Your task to perform on an android device: Go to display settings Image 0: 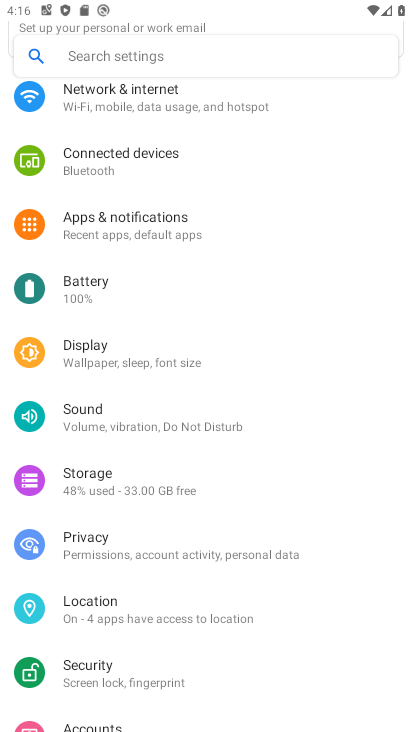
Step 0: press home button
Your task to perform on an android device: Go to display settings Image 1: 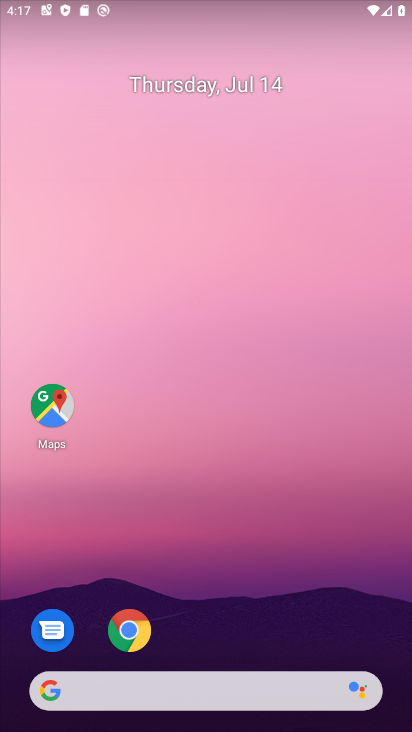
Step 1: drag from (239, 462) to (187, 29)
Your task to perform on an android device: Go to display settings Image 2: 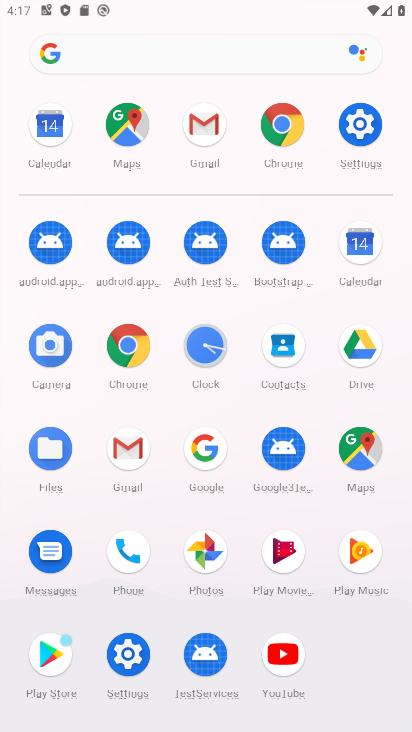
Step 2: click (362, 131)
Your task to perform on an android device: Go to display settings Image 3: 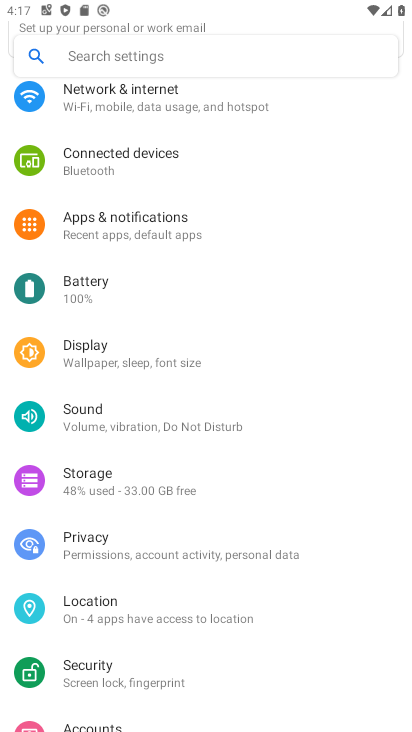
Step 3: click (125, 358)
Your task to perform on an android device: Go to display settings Image 4: 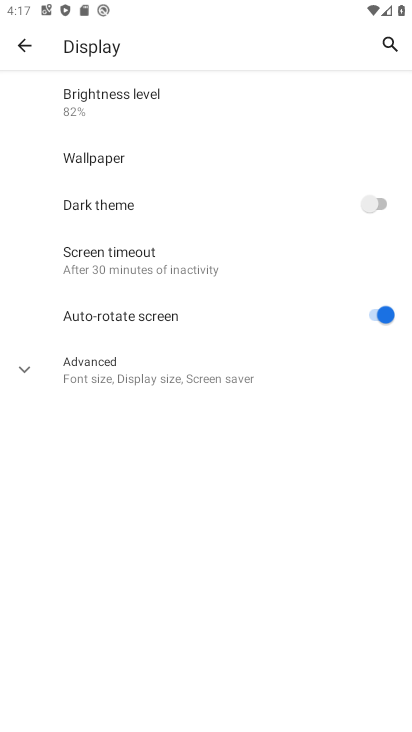
Step 4: task complete